Your task to perform on an android device: What's the weather going to be tomorrow? Image 0: 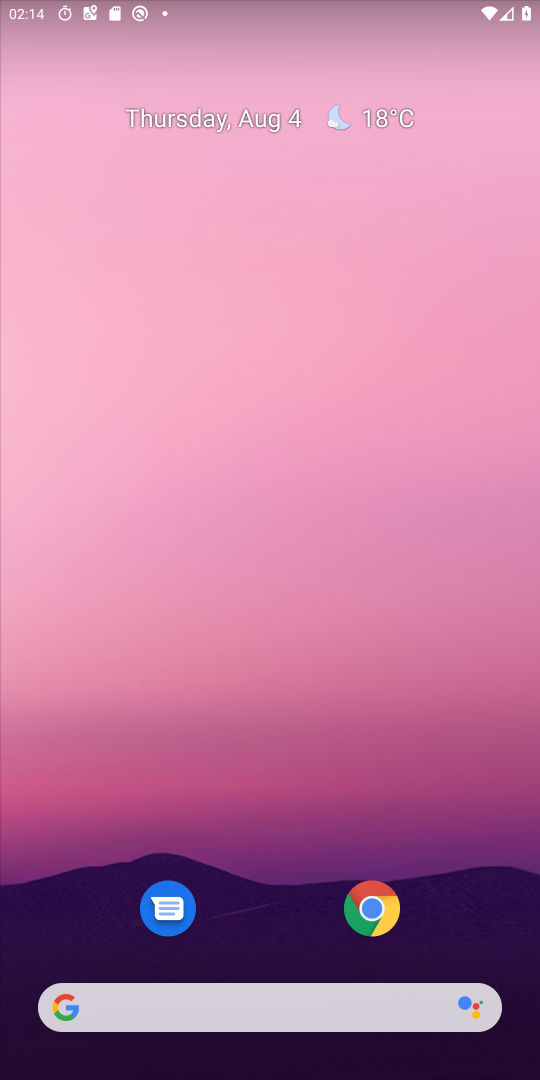
Step 0: press home button
Your task to perform on an android device: What's the weather going to be tomorrow? Image 1: 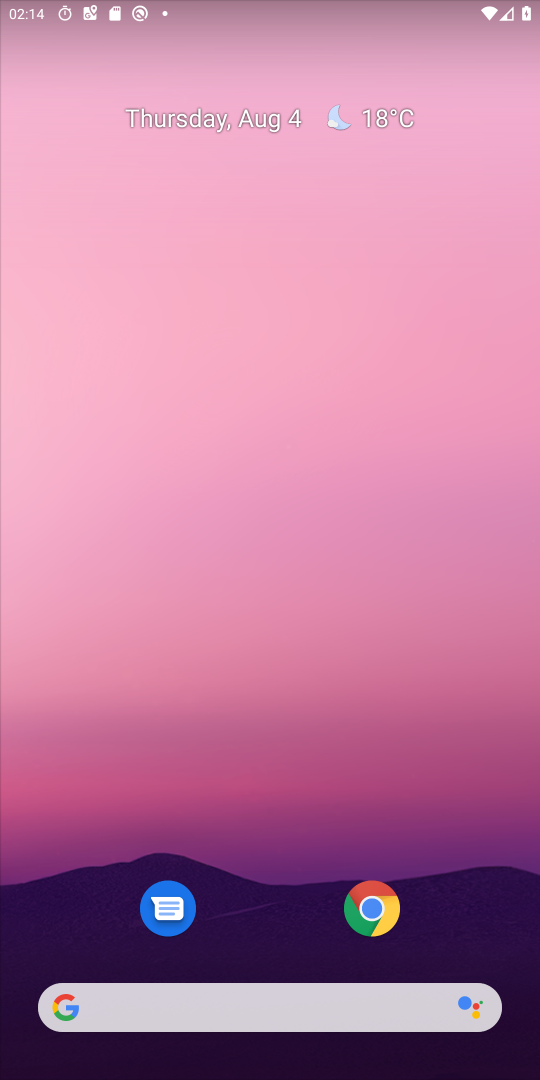
Step 1: drag from (340, 1032) to (258, 272)
Your task to perform on an android device: What's the weather going to be tomorrow? Image 2: 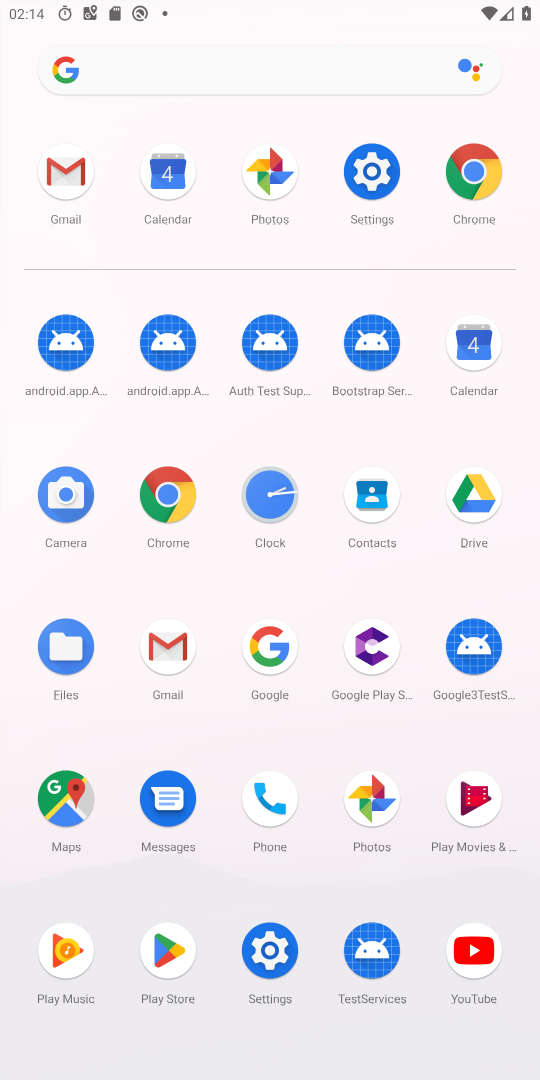
Step 2: click (181, 71)
Your task to perform on an android device: What's the weather going to be tomorrow? Image 3: 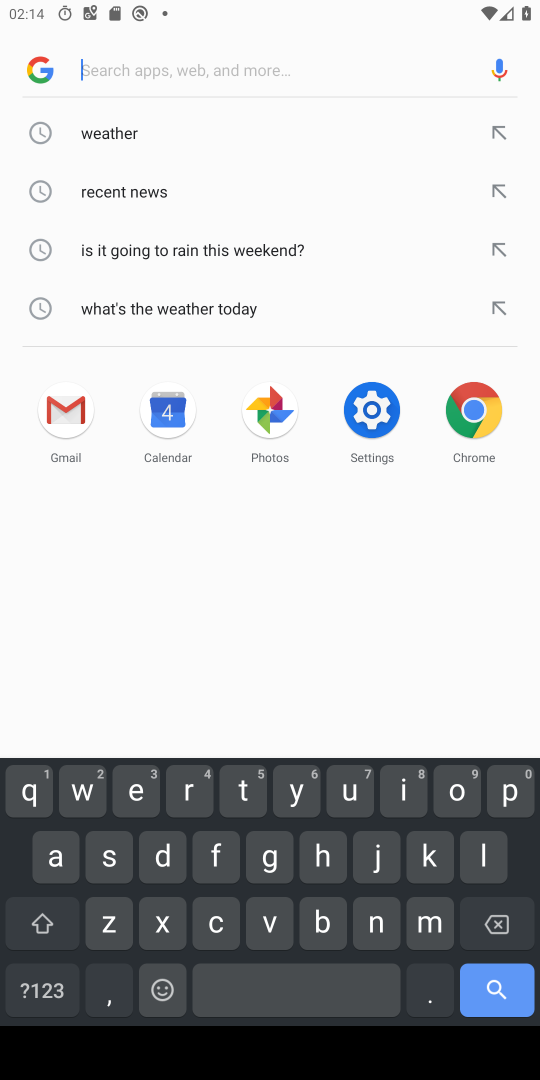
Step 3: click (120, 144)
Your task to perform on an android device: What's the weather going to be tomorrow? Image 4: 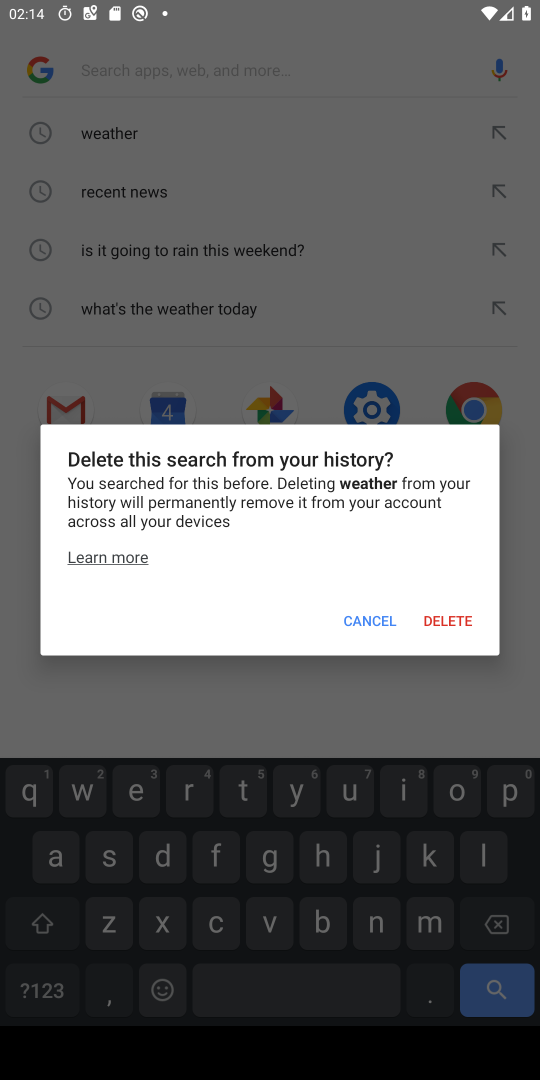
Step 4: click (361, 612)
Your task to perform on an android device: What's the weather going to be tomorrow? Image 5: 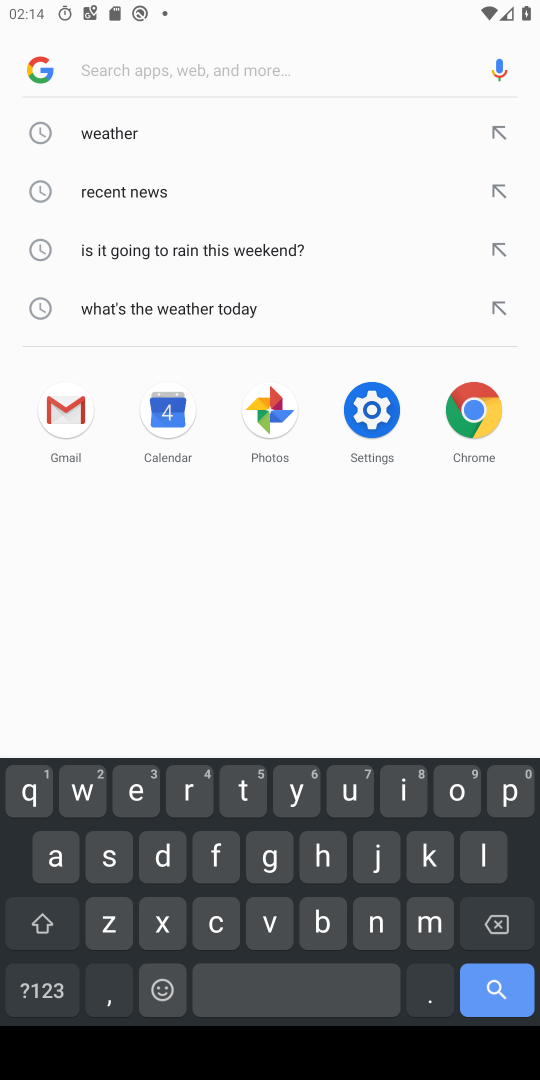
Step 5: click (145, 143)
Your task to perform on an android device: What's the weather going to be tomorrow? Image 6: 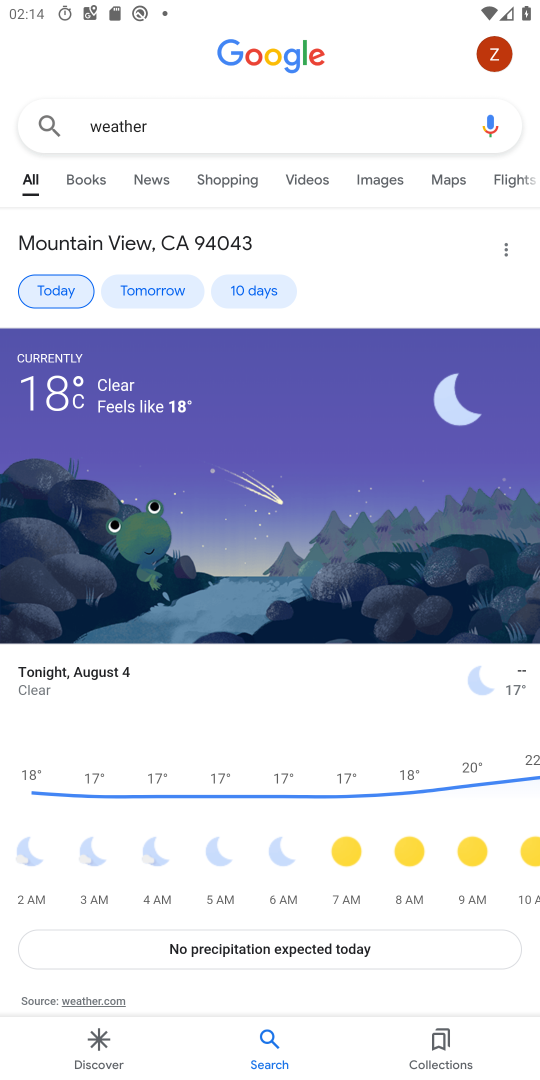
Step 6: click (167, 282)
Your task to perform on an android device: What's the weather going to be tomorrow? Image 7: 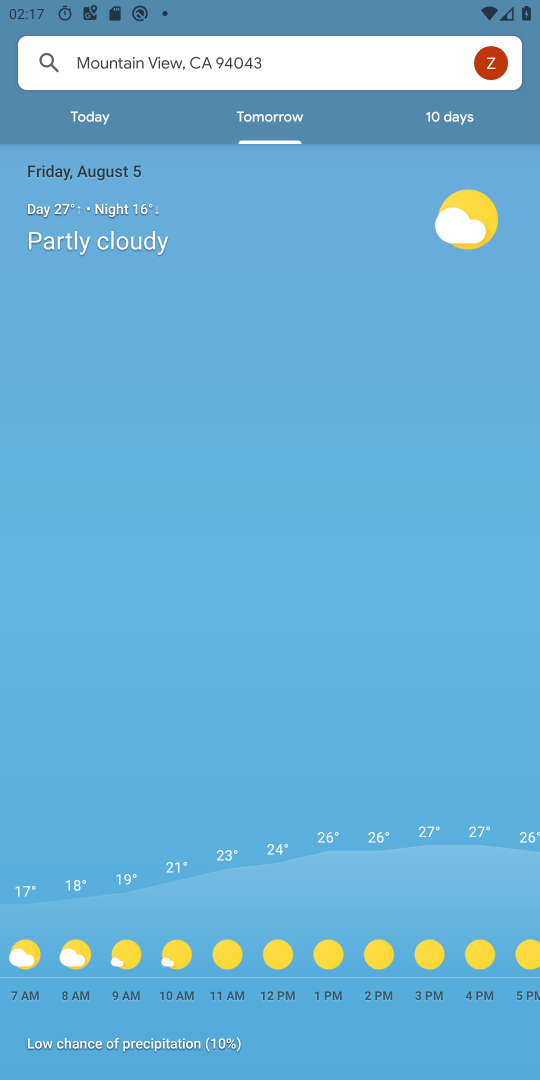
Step 7: task complete